Your task to perform on an android device: turn on data saver in the chrome app Image 0: 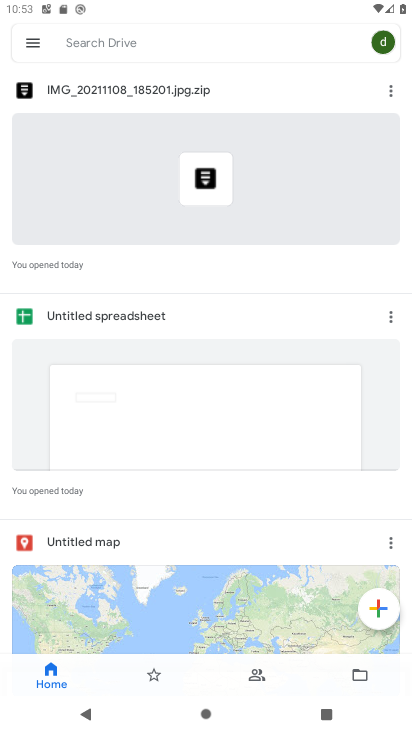
Step 0: press home button
Your task to perform on an android device: turn on data saver in the chrome app Image 1: 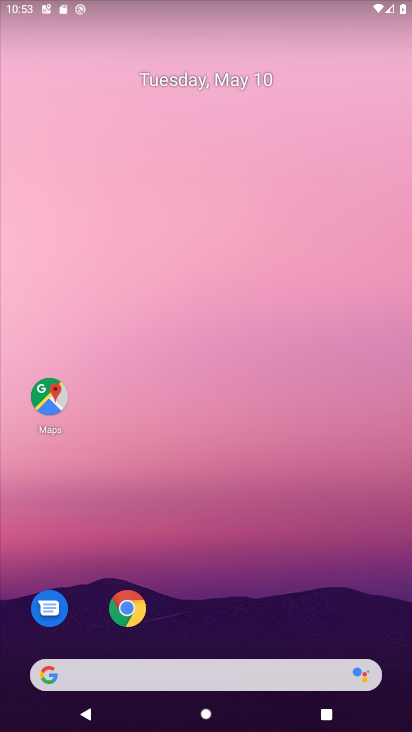
Step 1: click (136, 615)
Your task to perform on an android device: turn on data saver in the chrome app Image 2: 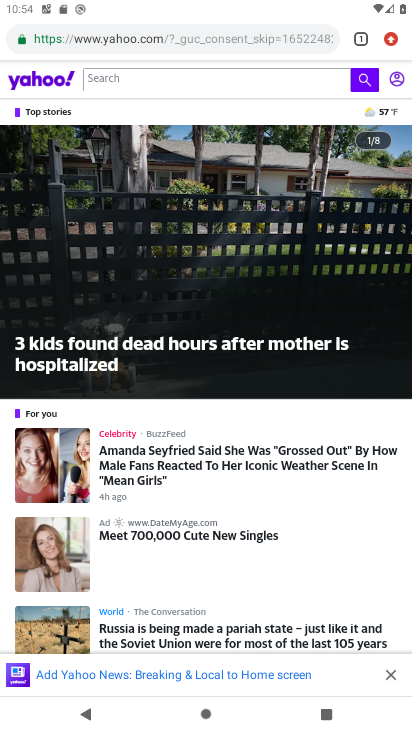
Step 2: drag from (392, 45) to (271, 513)
Your task to perform on an android device: turn on data saver in the chrome app Image 3: 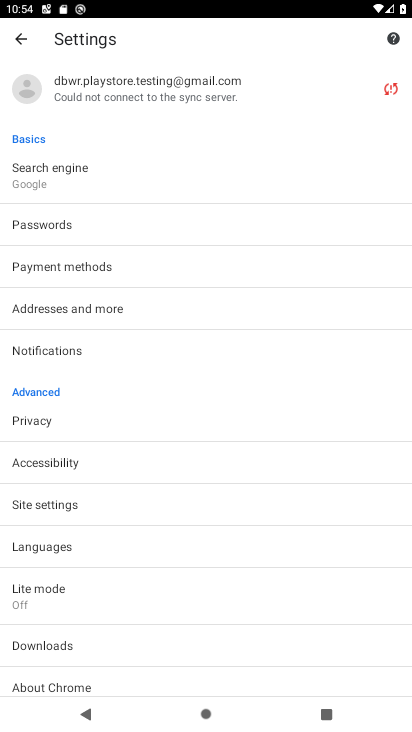
Step 3: click (72, 578)
Your task to perform on an android device: turn on data saver in the chrome app Image 4: 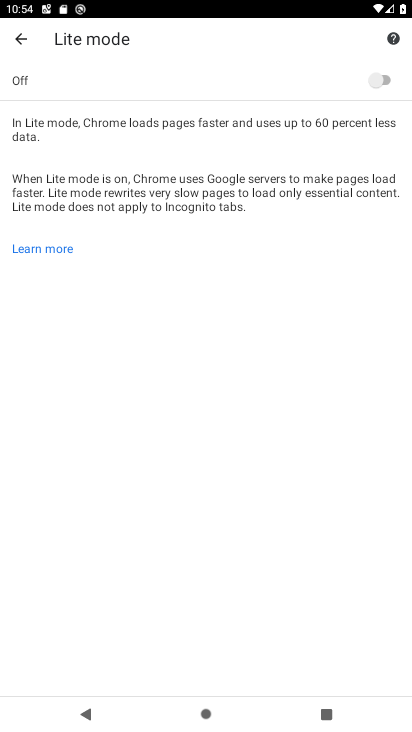
Step 4: click (385, 78)
Your task to perform on an android device: turn on data saver in the chrome app Image 5: 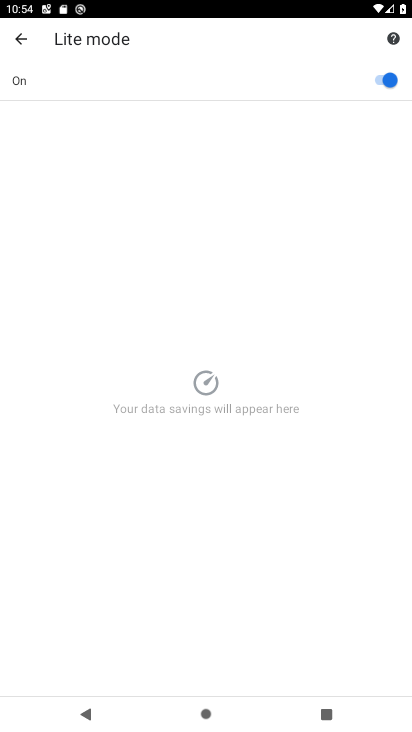
Step 5: task complete